Your task to perform on an android device: turn notification dots on Image 0: 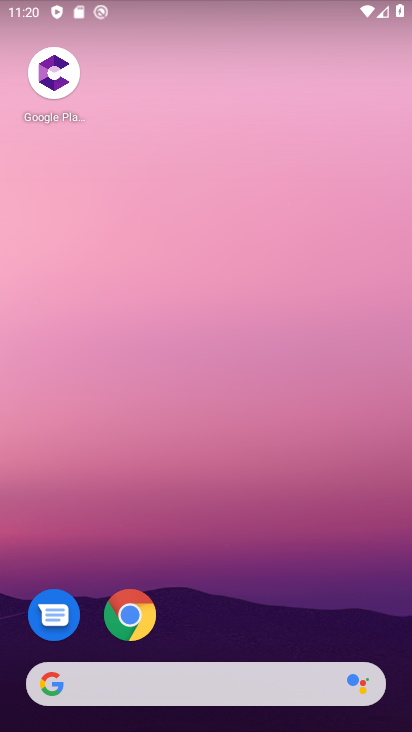
Step 0: drag from (311, 592) to (293, 34)
Your task to perform on an android device: turn notification dots on Image 1: 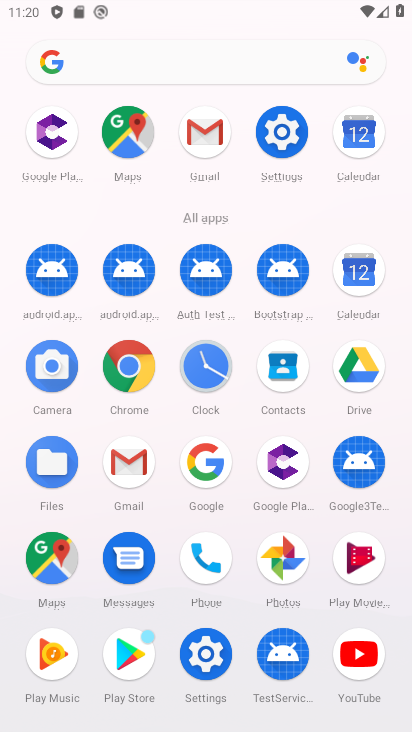
Step 1: click (276, 126)
Your task to perform on an android device: turn notification dots on Image 2: 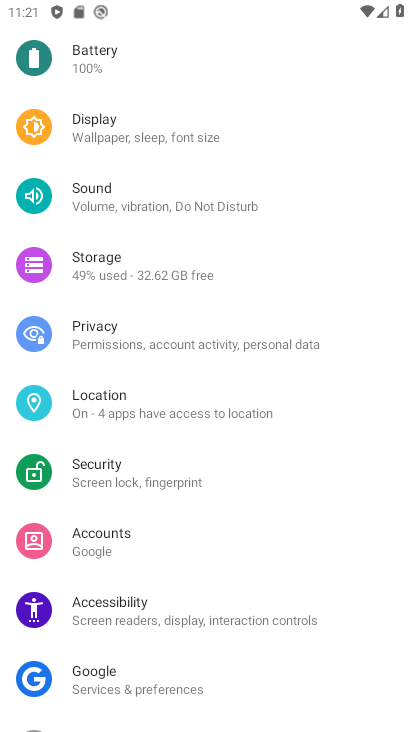
Step 2: drag from (249, 219) to (254, 587)
Your task to perform on an android device: turn notification dots on Image 3: 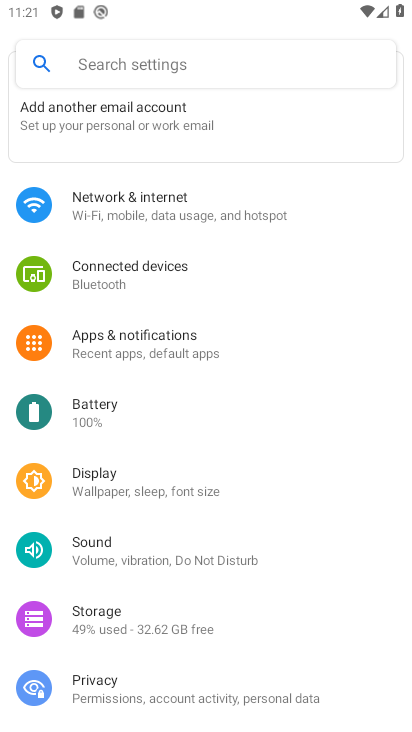
Step 3: click (190, 343)
Your task to perform on an android device: turn notification dots on Image 4: 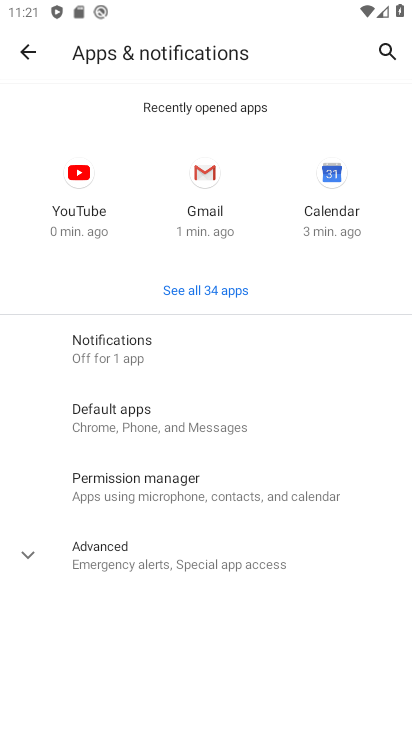
Step 4: click (191, 344)
Your task to perform on an android device: turn notification dots on Image 5: 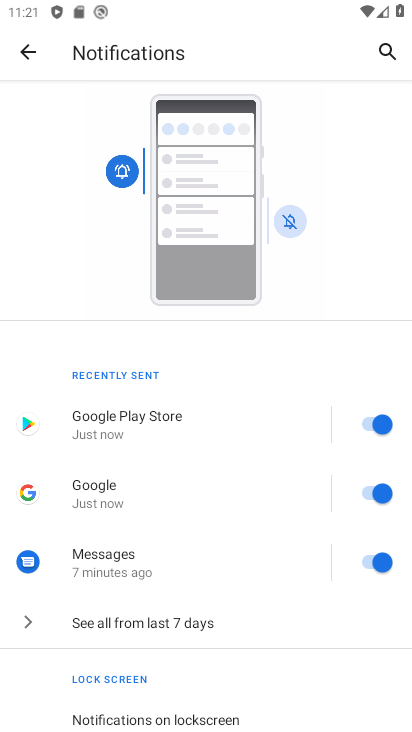
Step 5: drag from (169, 548) to (170, 62)
Your task to perform on an android device: turn notification dots on Image 6: 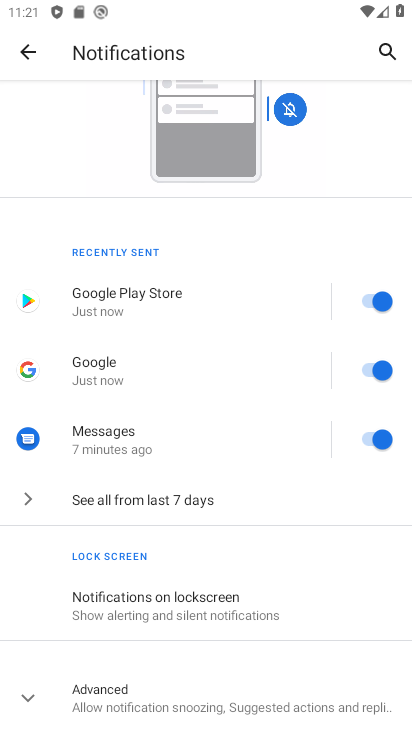
Step 6: click (30, 686)
Your task to perform on an android device: turn notification dots on Image 7: 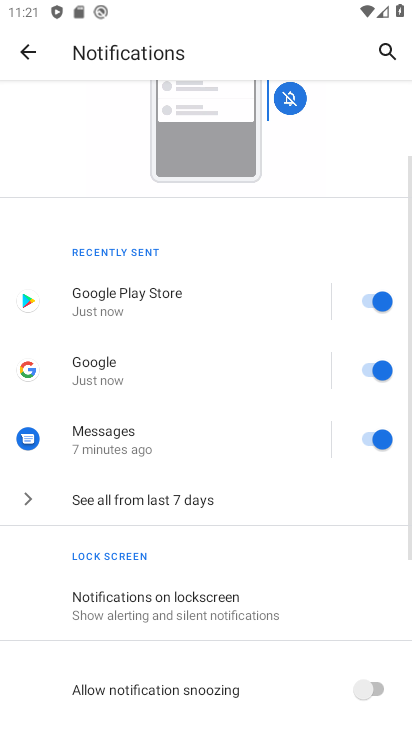
Step 7: task complete